Your task to perform on an android device: Open Google Maps Image 0: 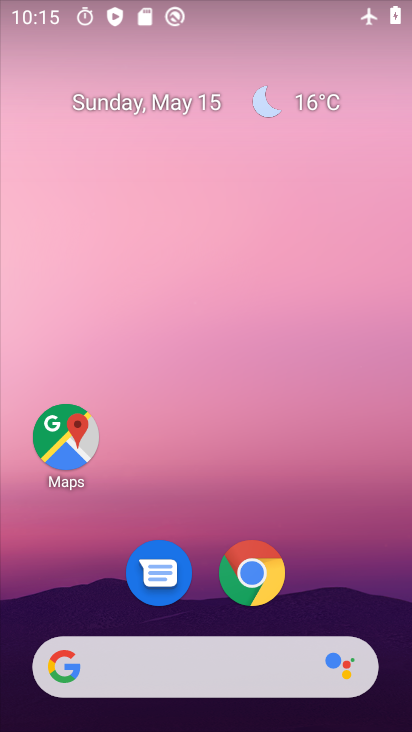
Step 0: drag from (293, 609) to (293, 184)
Your task to perform on an android device: Open Google Maps Image 1: 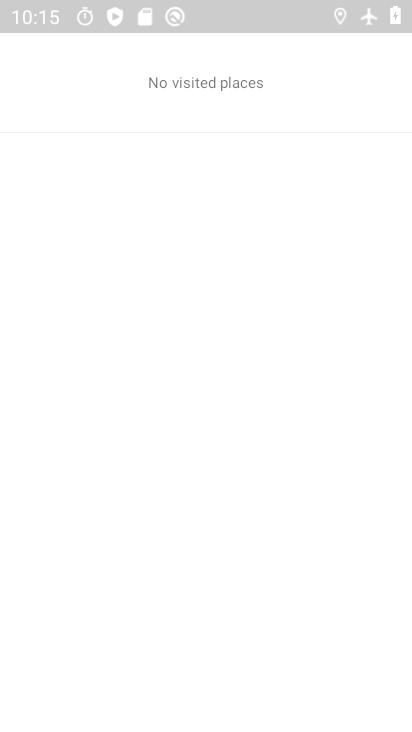
Step 1: press home button
Your task to perform on an android device: Open Google Maps Image 2: 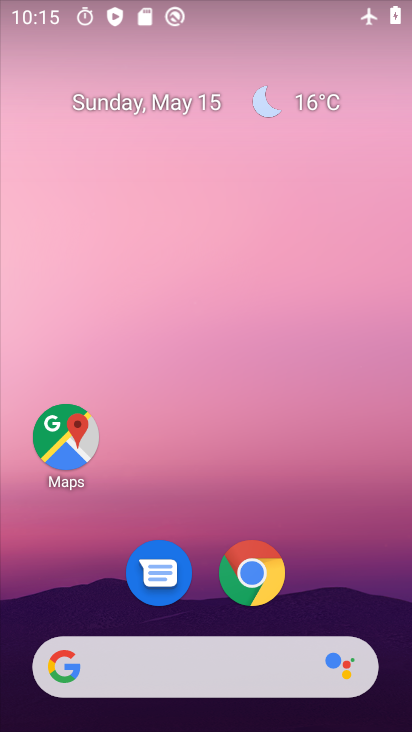
Step 2: click (53, 447)
Your task to perform on an android device: Open Google Maps Image 3: 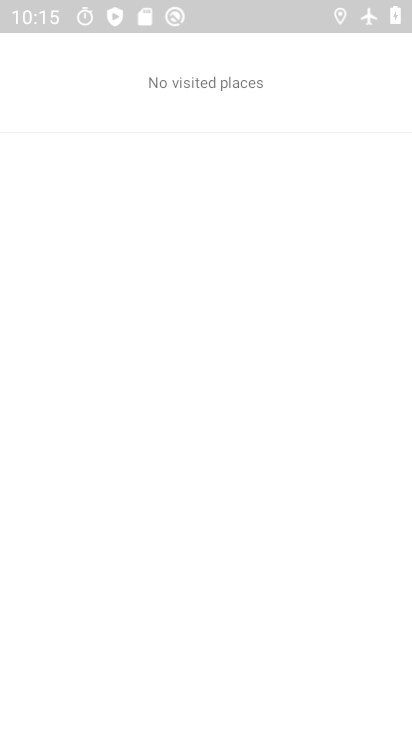
Step 3: press back button
Your task to perform on an android device: Open Google Maps Image 4: 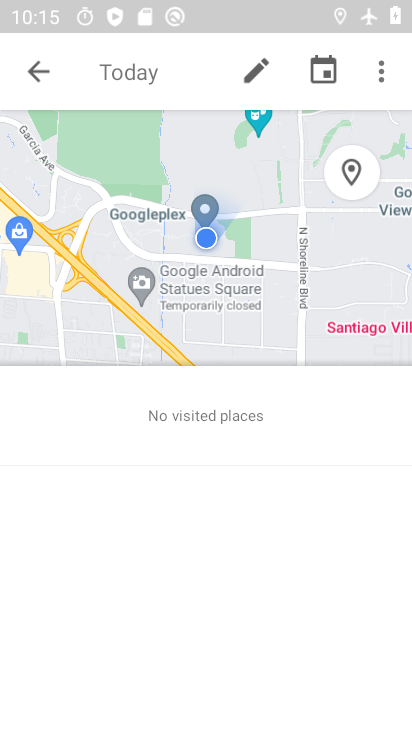
Step 4: press back button
Your task to perform on an android device: Open Google Maps Image 5: 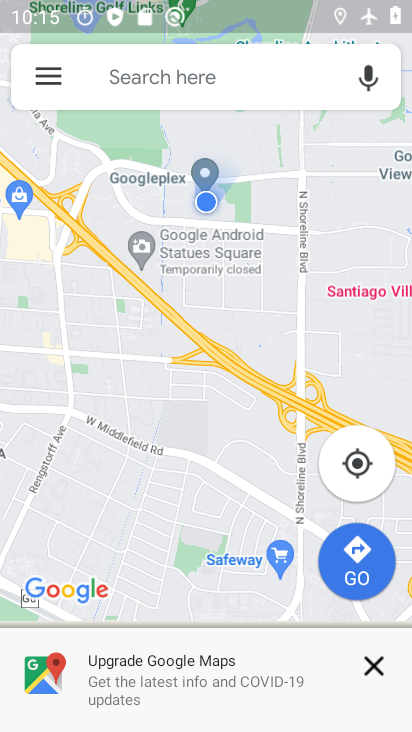
Step 5: press back button
Your task to perform on an android device: Open Google Maps Image 6: 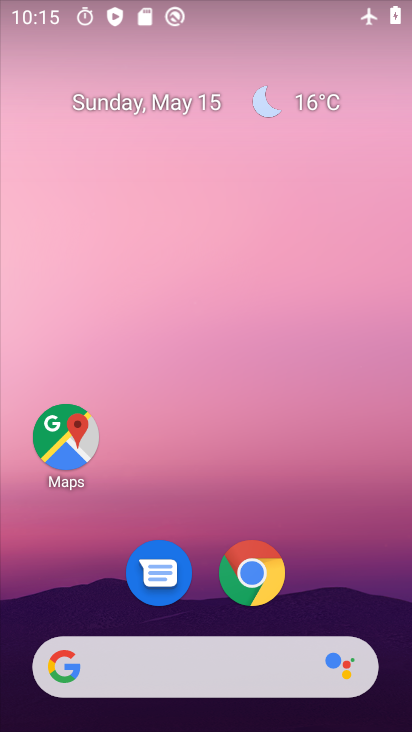
Step 6: drag from (309, 615) to (313, 205)
Your task to perform on an android device: Open Google Maps Image 7: 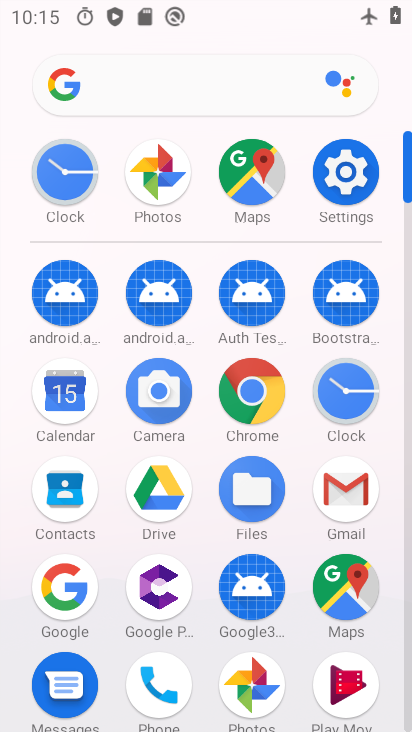
Step 7: click (341, 594)
Your task to perform on an android device: Open Google Maps Image 8: 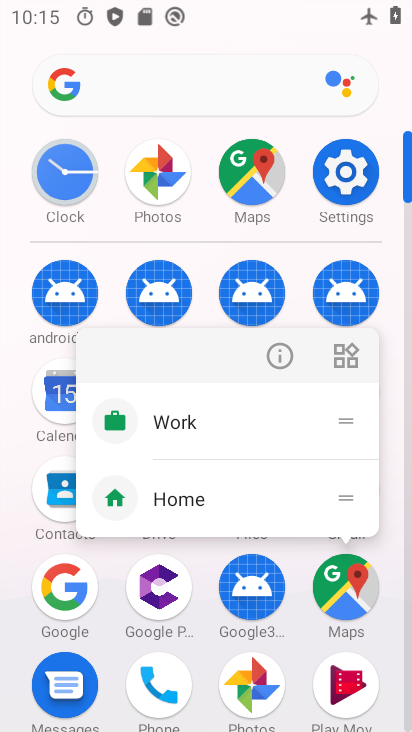
Step 8: click (349, 609)
Your task to perform on an android device: Open Google Maps Image 9: 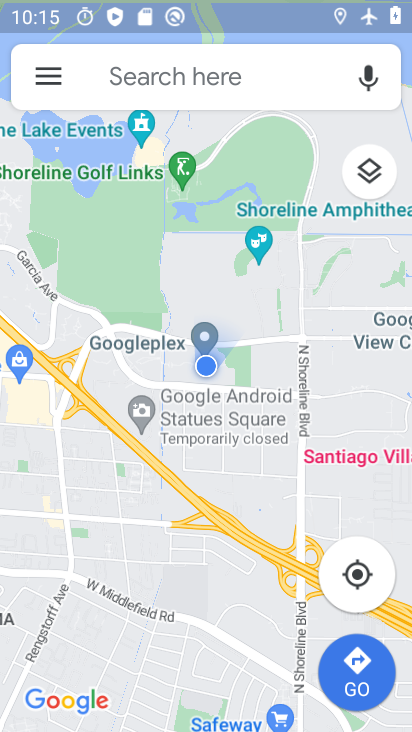
Step 9: task complete